Your task to perform on an android device: Open Android settings Image 0: 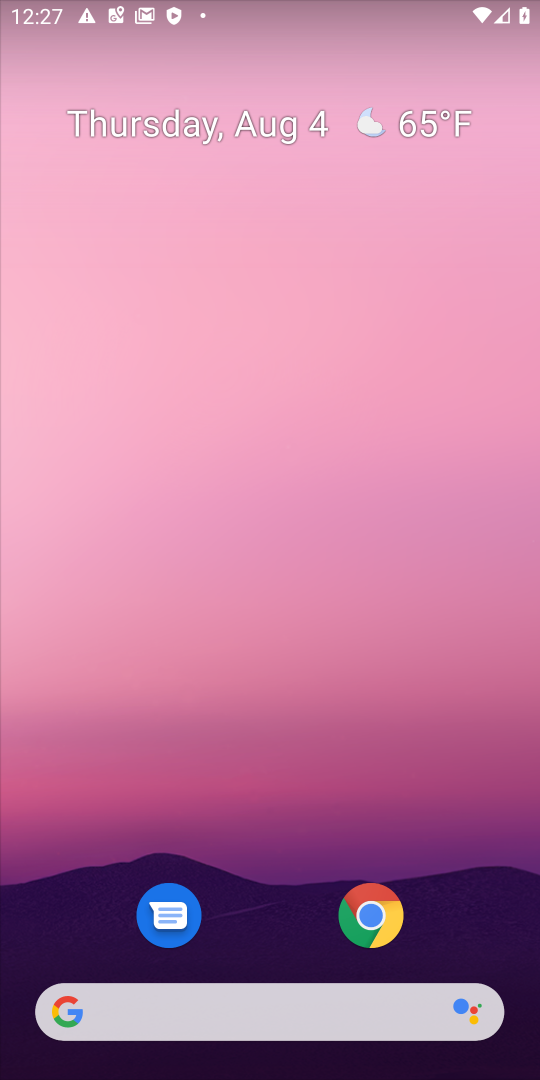
Step 0: drag from (239, 97) to (185, 859)
Your task to perform on an android device: Open Android settings Image 1: 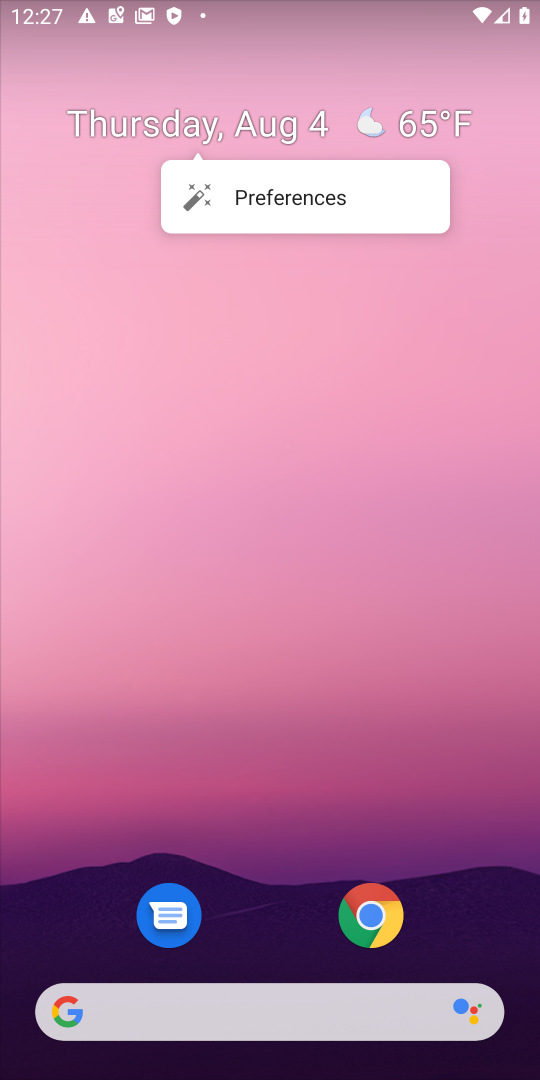
Step 1: drag from (241, 797) to (251, 98)
Your task to perform on an android device: Open Android settings Image 2: 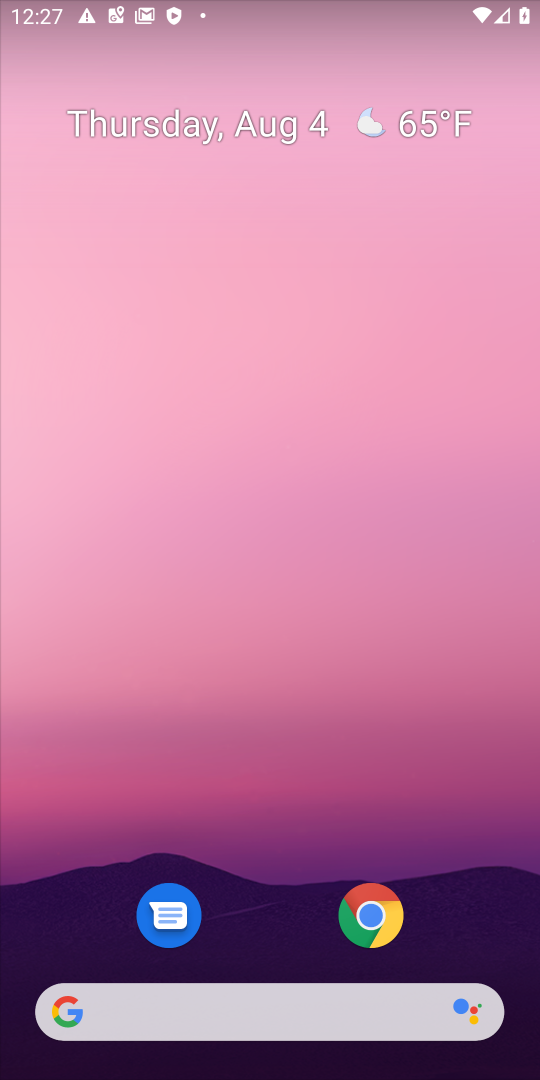
Step 2: drag from (261, 678) to (318, 109)
Your task to perform on an android device: Open Android settings Image 3: 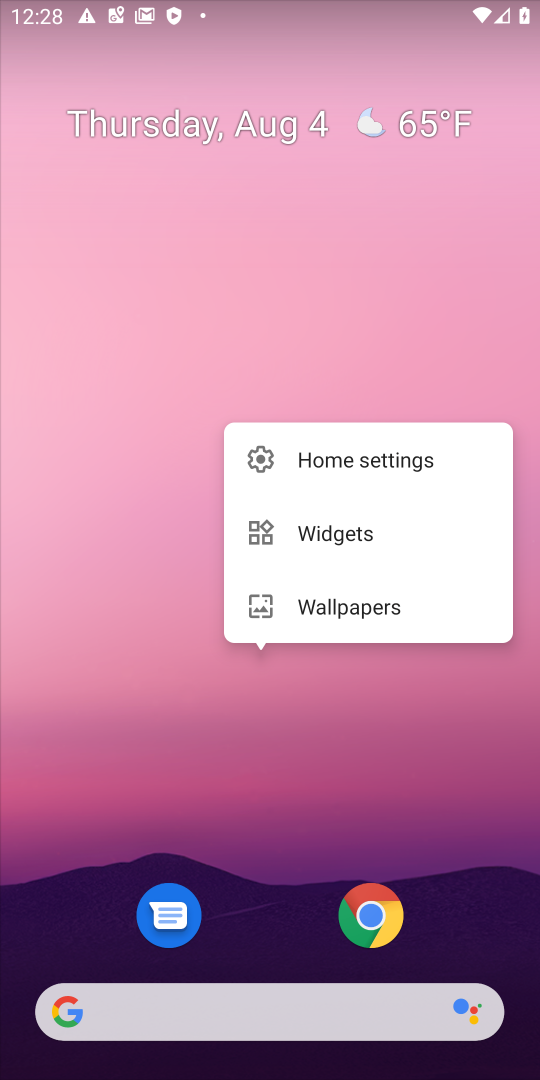
Step 3: drag from (253, 6) to (255, 70)
Your task to perform on an android device: Open Android settings Image 4: 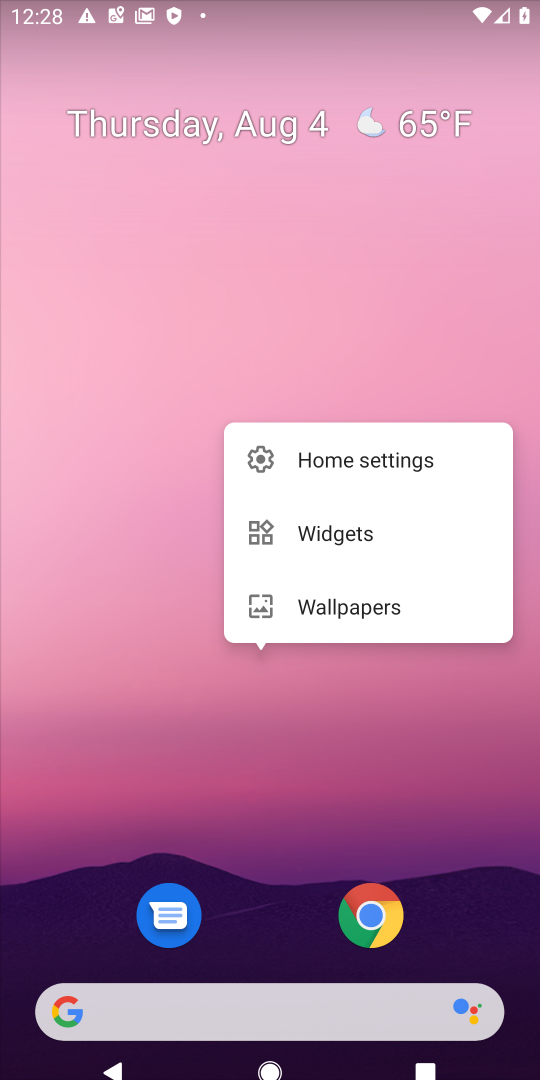
Step 4: drag from (250, 709) to (312, 208)
Your task to perform on an android device: Open Android settings Image 5: 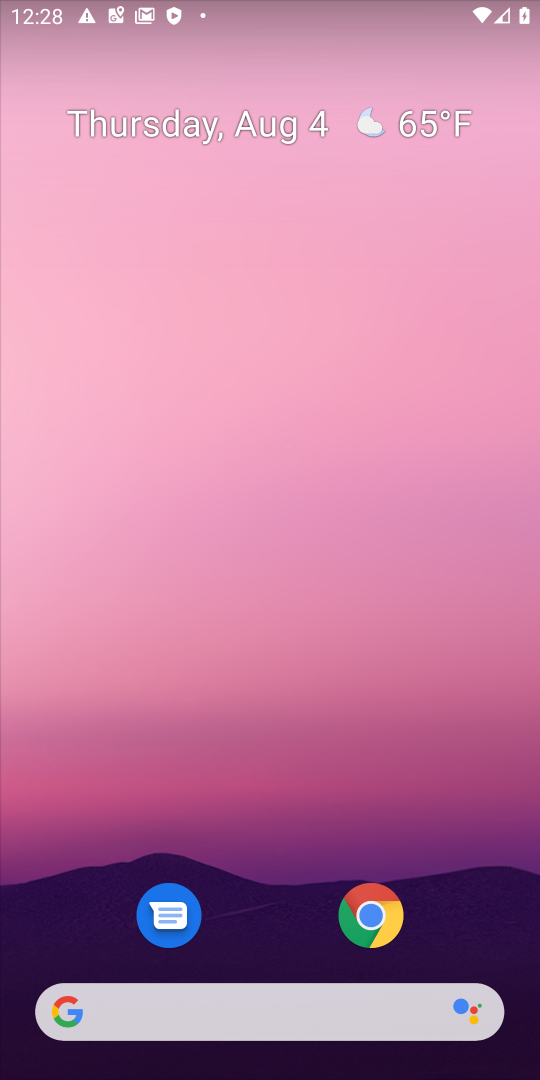
Step 5: drag from (269, 660) to (286, 87)
Your task to perform on an android device: Open Android settings Image 6: 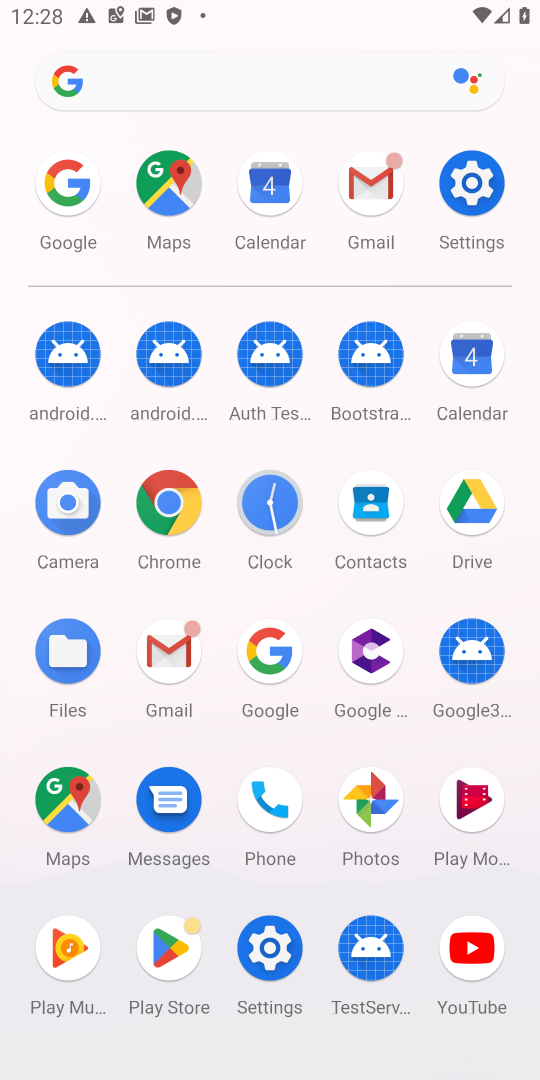
Step 6: click (266, 948)
Your task to perform on an android device: Open Android settings Image 7: 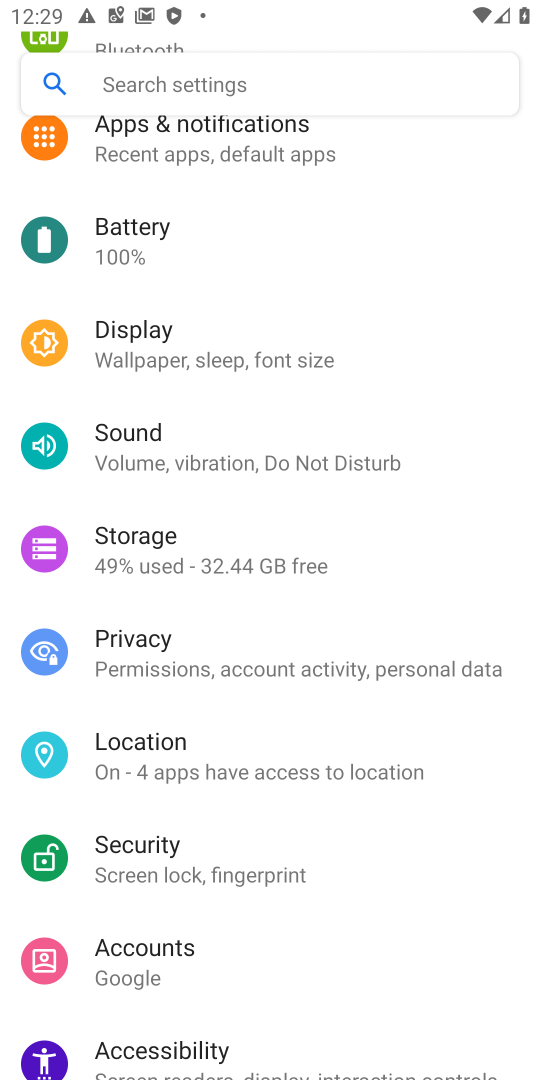
Step 7: drag from (211, 929) to (214, 37)
Your task to perform on an android device: Open Android settings Image 8: 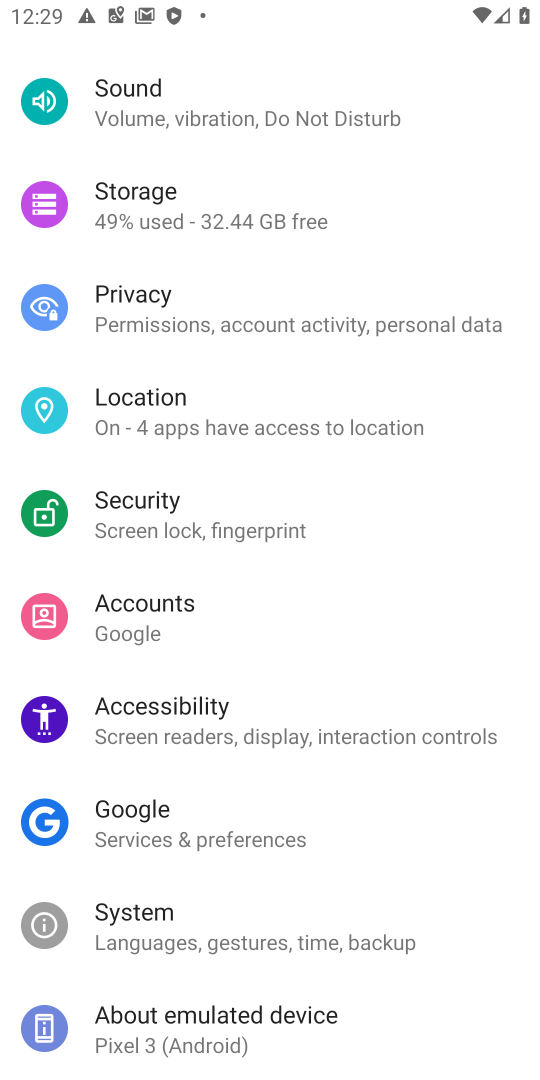
Step 8: click (173, 1020)
Your task to perform on an android device: Open Android settings Image 9: 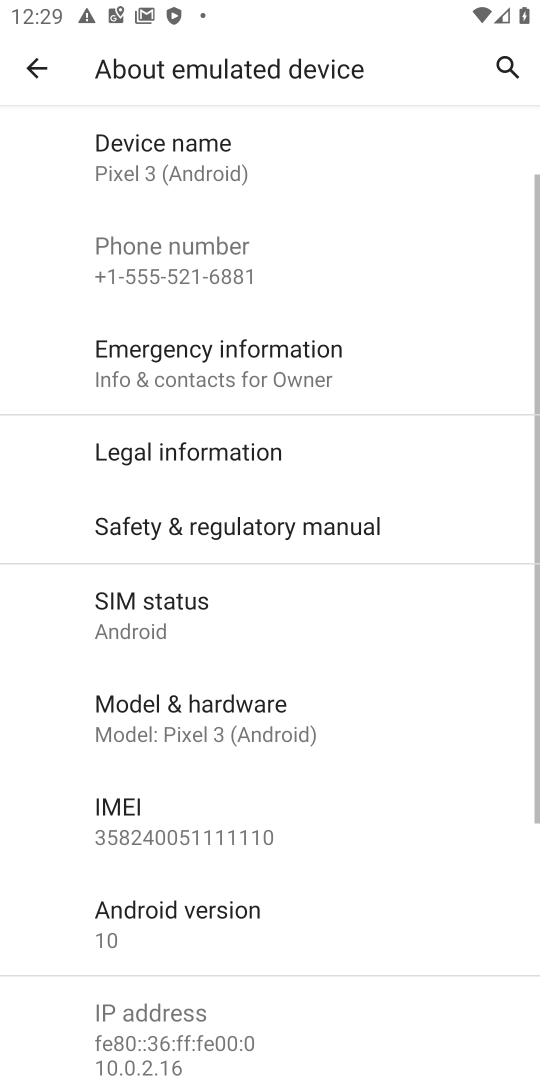
Step 9: click (204, 932)
Your task to perform on an android device: Open Android settings Image 10: 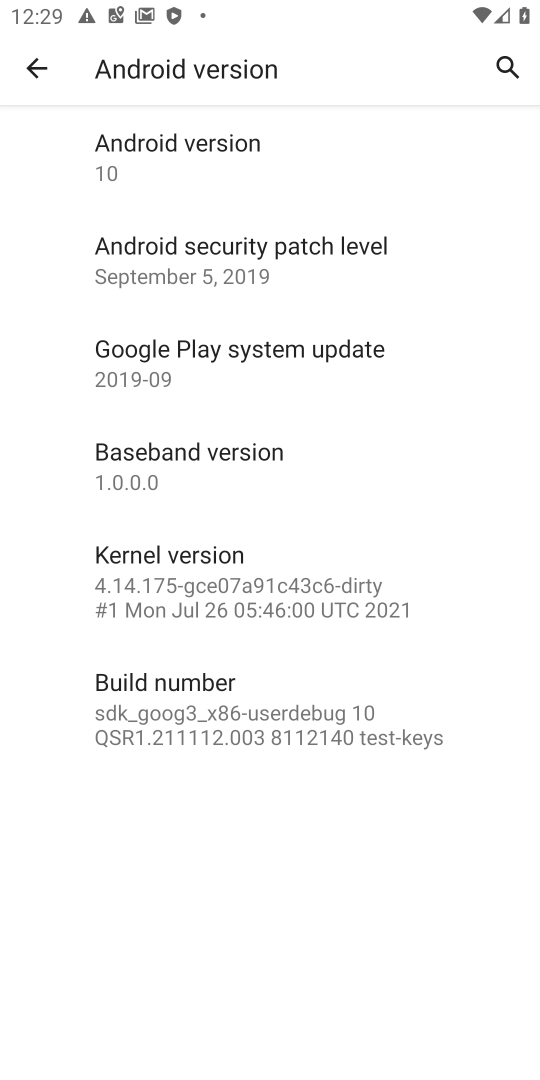
Step 10: task complete